Your task to perform on an android device: toggle notification dots Image 0: 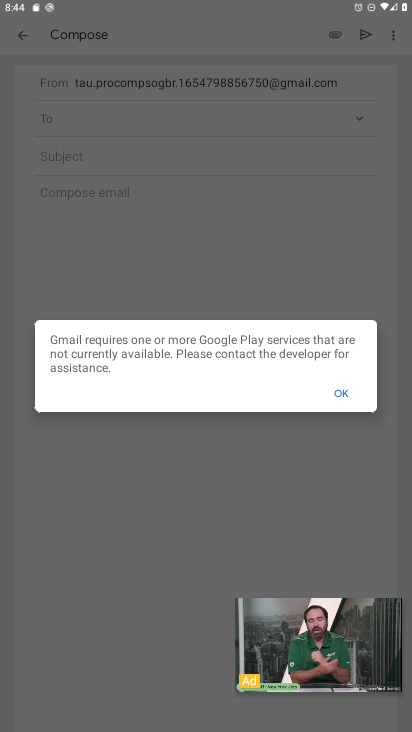
Step 0: click (315, 629)
Your task to perform on an android device: toggle notification dots Image 1: 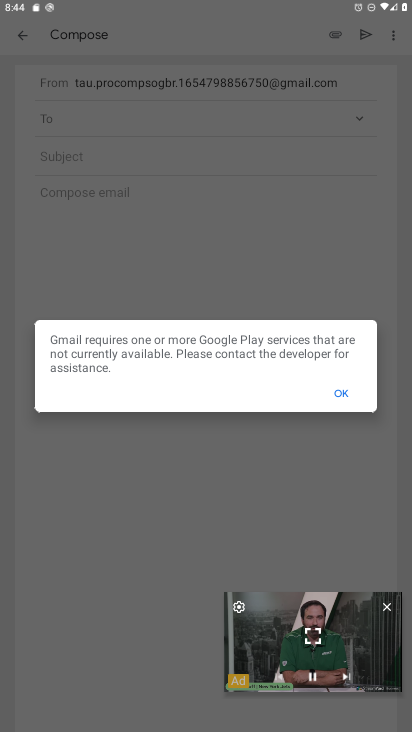
Step 1: click (341, 637)
Your task to perform on an android device: toggle notification dots Image 2: 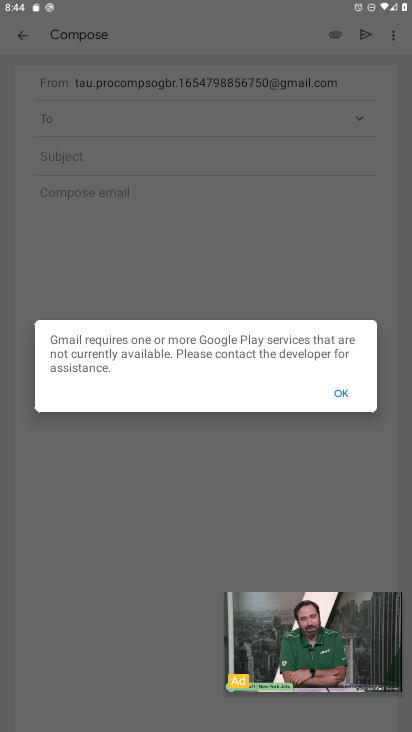
Step 2: click (380, 601)
Your task to perform on an android device: toggle notification dots Image 3: 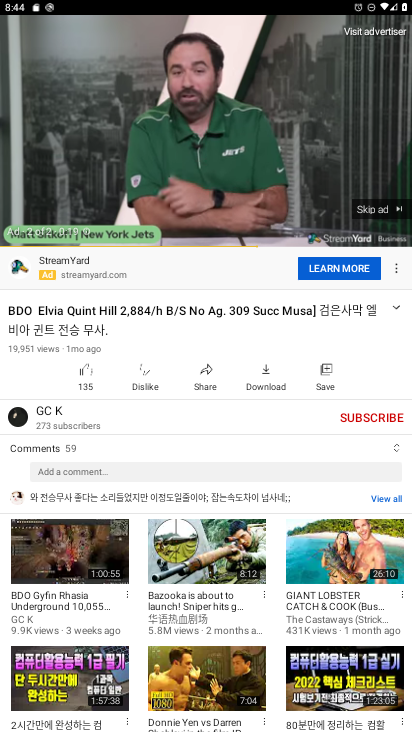
Step 3: click (189, 123)
Your task to perform on an android device: toggle notification dots Image 4: 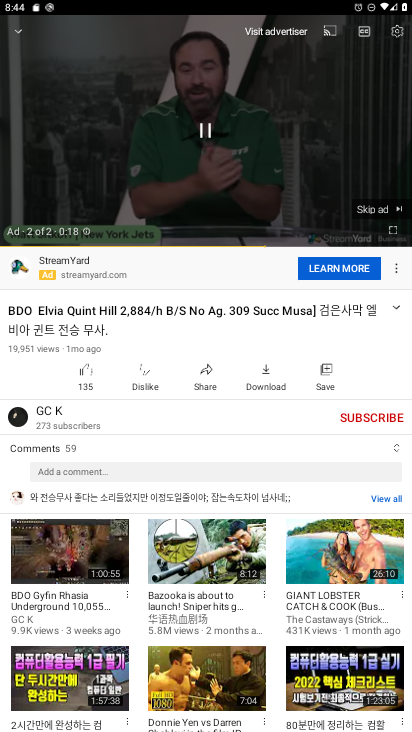
Step 4: click (211, 121)
Your task to perform on an android device: toggle notification dots Image 5: 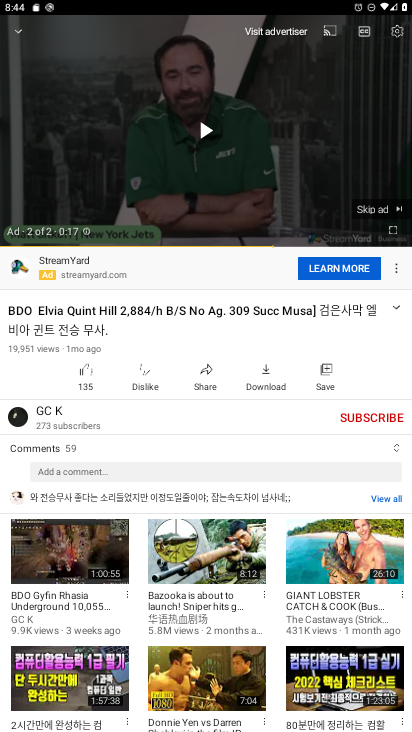
Step 5: press home button
Your task to perform on an android device: toggle notification dots Image 6: 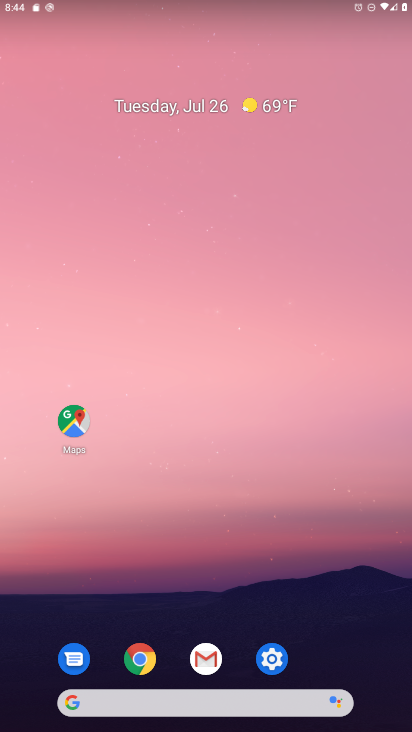
Step 6: click (265, 668)
Your task to perform on an android device: toggle notification dots Image 7: 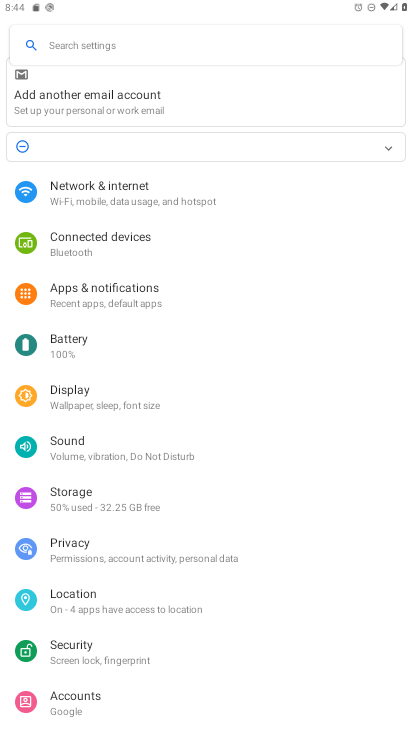
Step 7: click (120, 55)
Your task to perform on an android device: toggle notification dots Image 8: 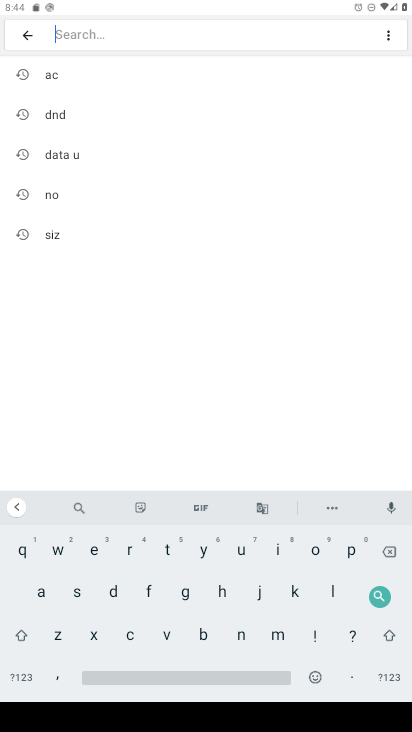
Step 8: click (66, 198)
Your task to perform on an android device: toggle notification dots Image 9: 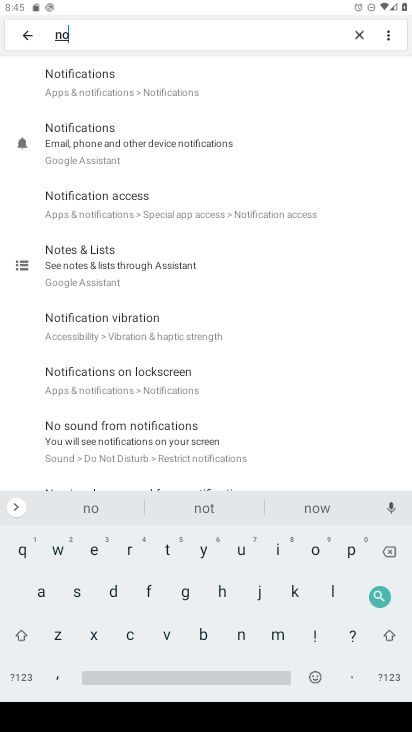
Step 9: click (130, 70)
Your task to perform on an android device: toggle notification dots Image 10: 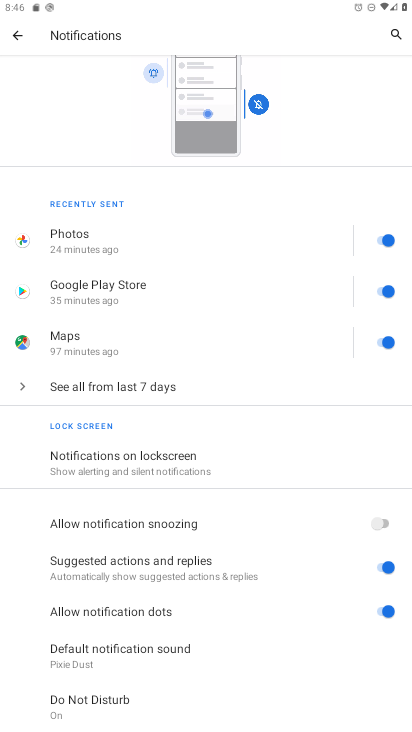
Step 10: task complete